Your task to perform on an android device: visit the assistant section in the google photos Image 0: 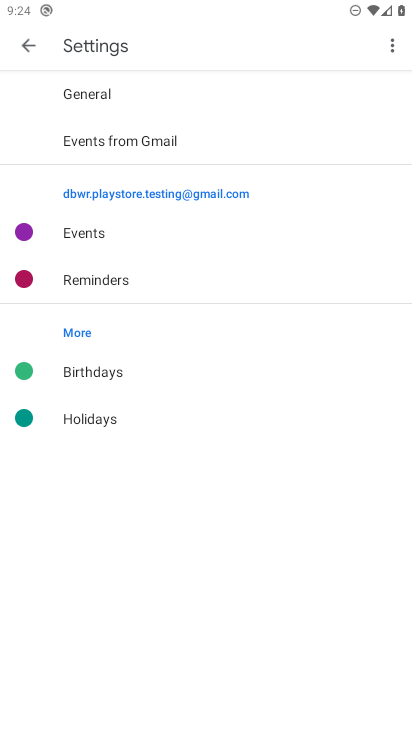
Step 0: press home button
Your task to perform on an android device: visit the assistant section in the google photos Image 1: 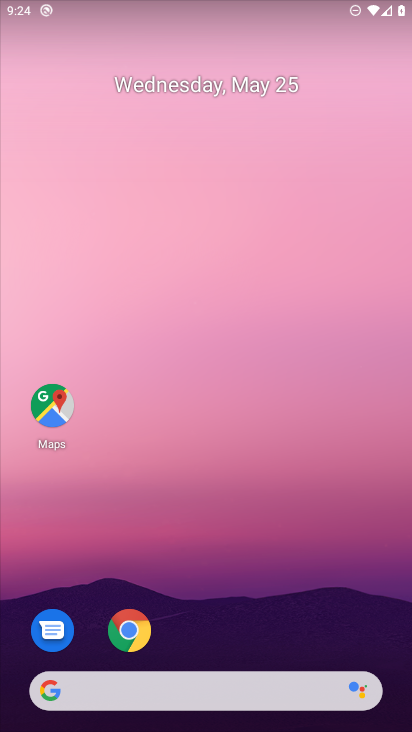
Step 1: drag from (209, 645) to (257, 272)
Your task to perform on an android device: visit the assistant section in the google photos Image 2: 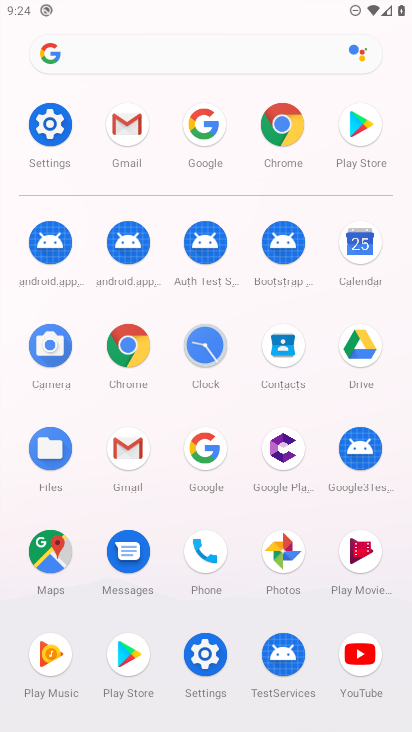
Step 2: click (285, 555)
Your task to perform on an android device: visit the assistant section in the google photos Image 3: 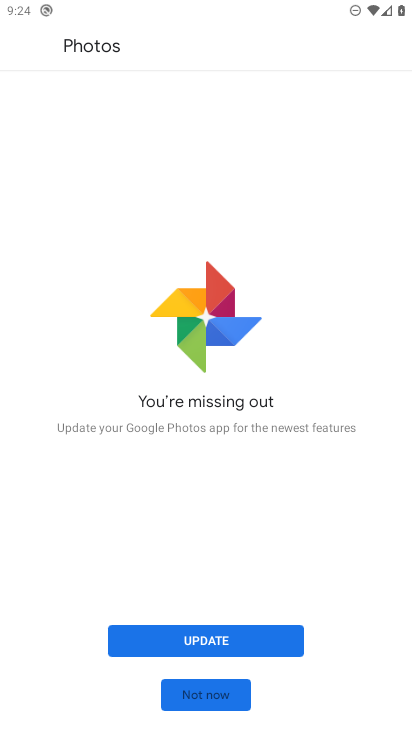
Step 3: click (216, 701)
Your task to perform on an android device: visit the assistant section in the google photos Image 4: 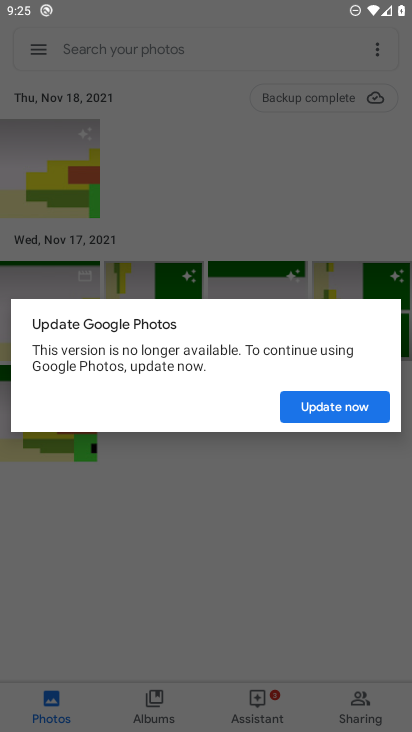
Step 4: click (325, 408)
Your task to perform on an android device: visit the assistant section in the google photos Image 5: 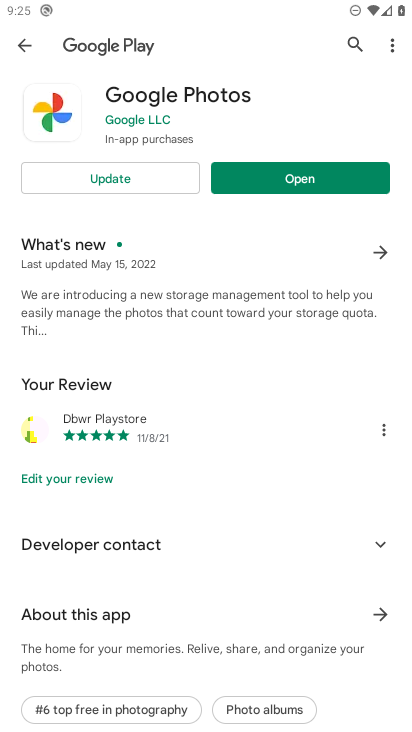
Step 5: click (128, 179)
Your task to perform on an android device: visit the assistant section in the google photos Image 6: 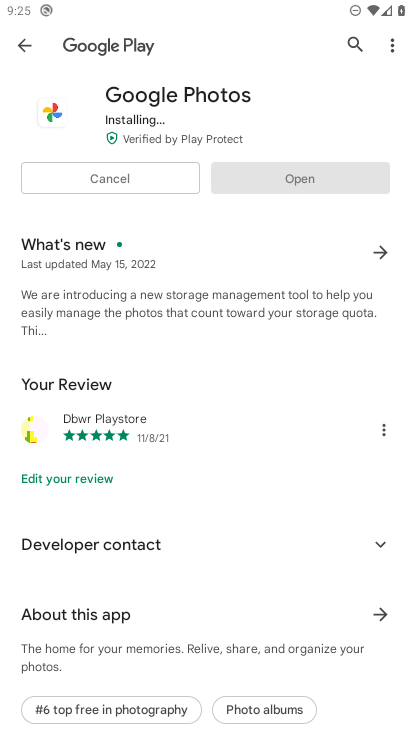
Step 6: task complete